Your task to perform on an android device: Go to Maps Image 0: 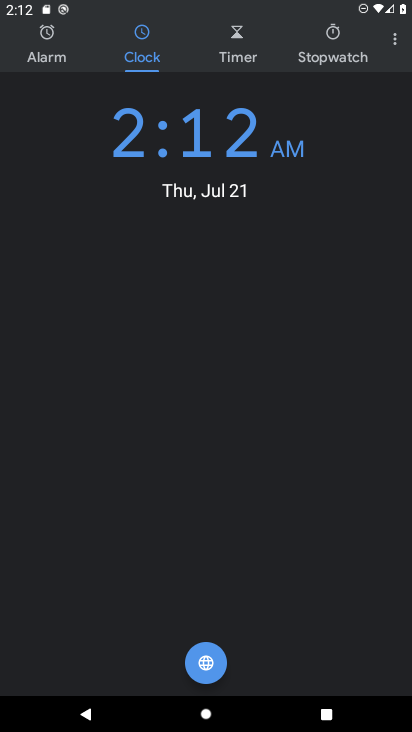
Step 0: press home button
Your task to perform on an android device: Go to Maps Image 1: 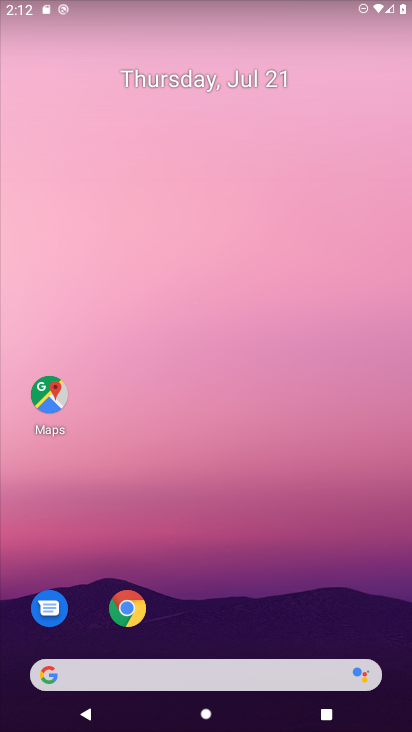
Step 1: click (54, 390)
Your task to perform on an android device: Go to Maps Image 2: 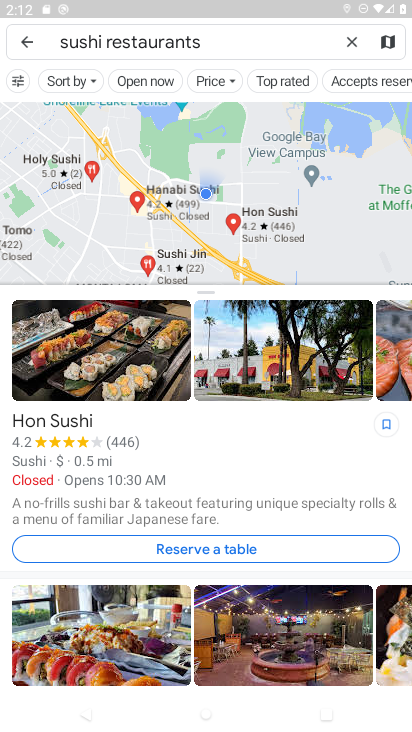
Step 2: task complete